Your task to perform on an android device: delete a single message in the gmail app Image 0: 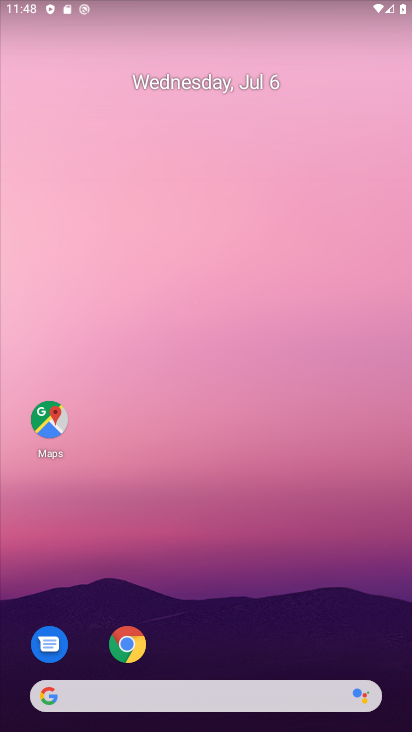
Step 0: drag from (229, 648) to (248, 221)
Your task to perform on an android device: delete a single message in the gmail app Image 1: 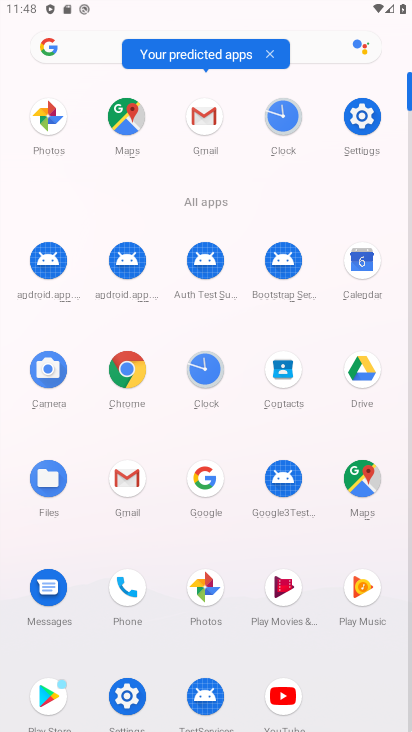
Step 1: click (204, 117)
Your task to perform on an android device: delete a single message in the gmail app Image 2: 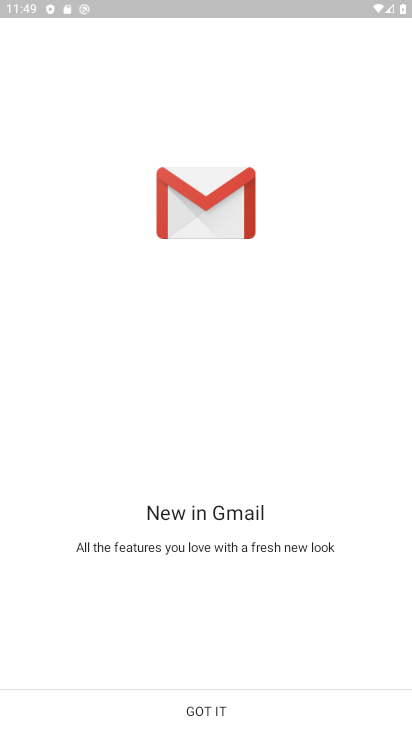
Step 2: click (195, 713)
Your task to perform on an android device: delete a single message in the gmail app Image 3: 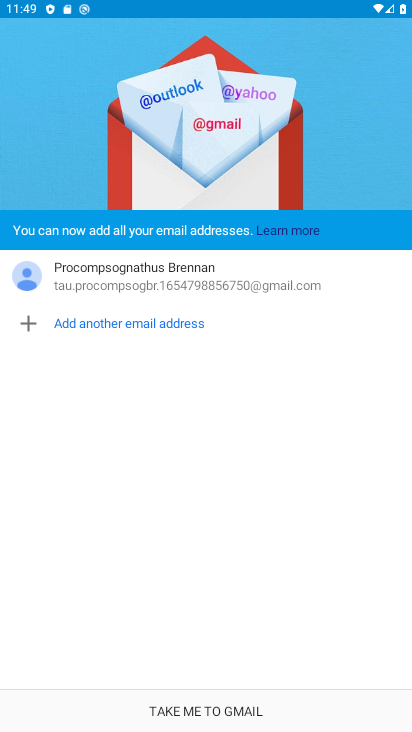
Step 3: click (222, 706)
Your task to perform on an android device: delete a single message in the gmail app Image 4: 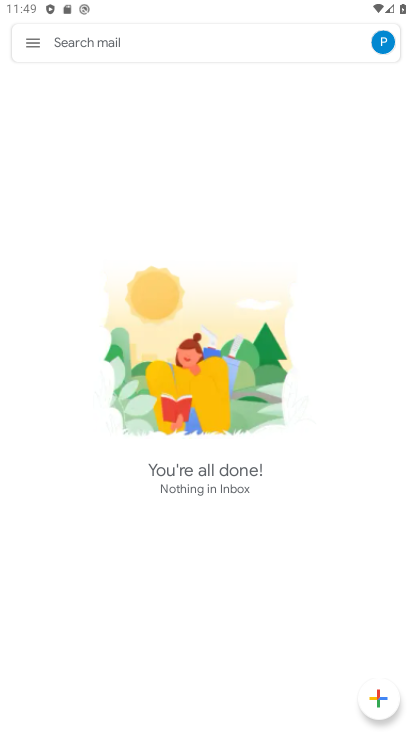
Step 4: task complete